Your task to perform on an android device: Go to ESPN.com Image 0: 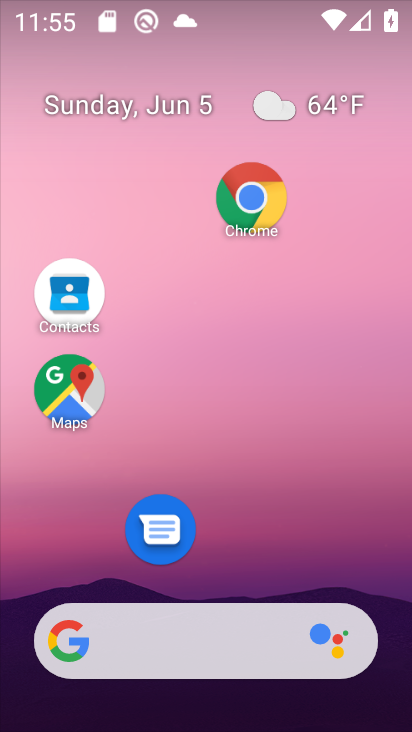
Step 0: click (250, 207)
Your task to perform on an android device: Go to ESPN.com Image 1: 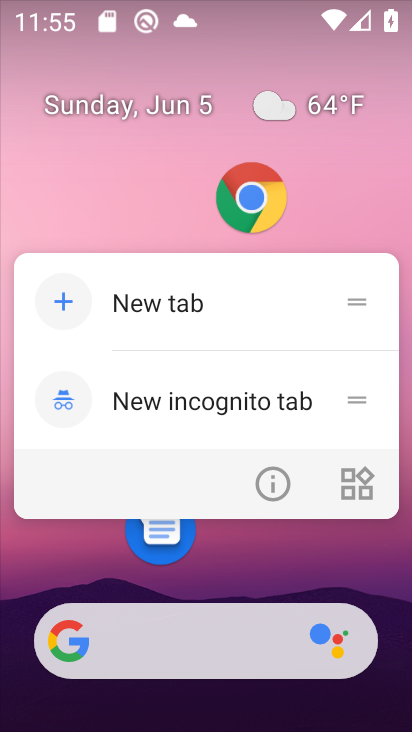
Step 1: click (250, 210)
Your task to perform on an android device: Go to ESPN.com Image 2: 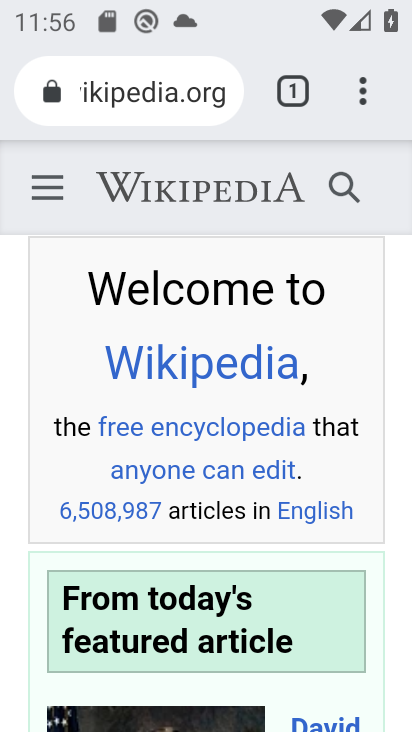
Step 2: click (147, 90)
Your task to perform on an android device: Go to ESPN.com Image 3: 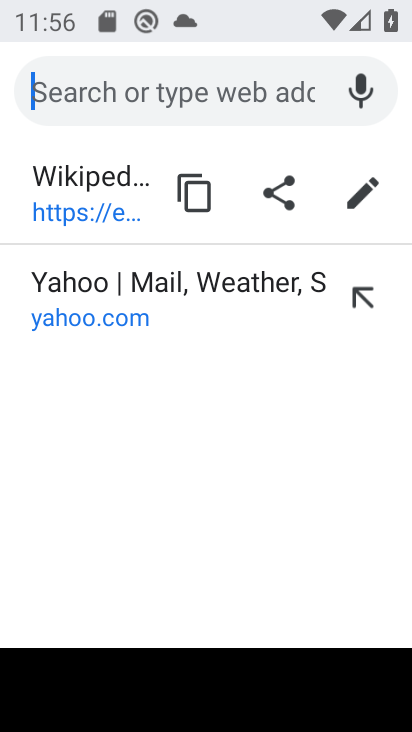
Step 3: type "ESPN.com"
Your task to perform on an android device: Go to ESPN.com Image 4: 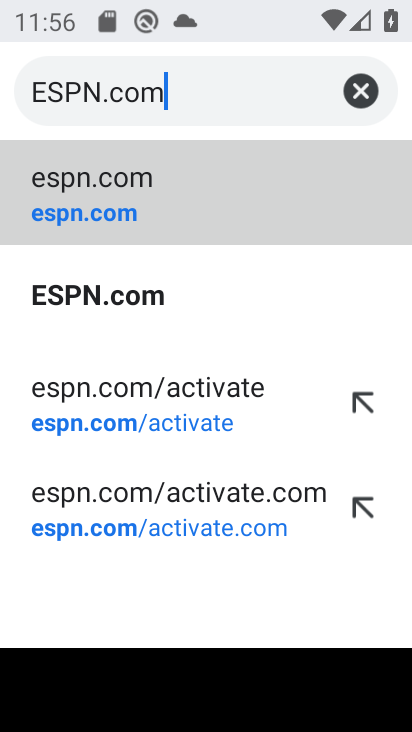
Step 4: click (123, 208)
Your task to perform on an android device: Go to ESPN.com Image 5: 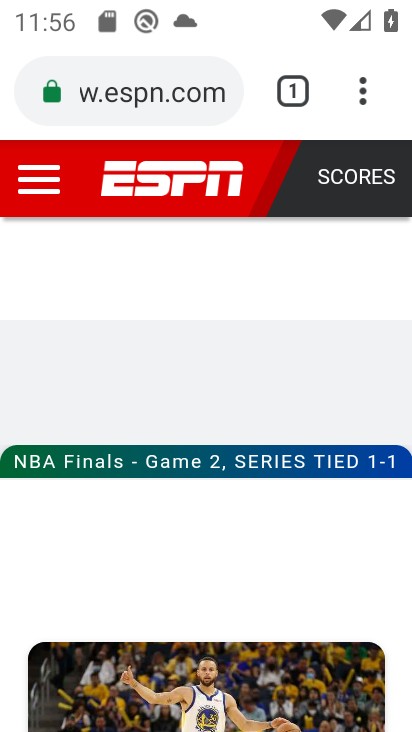
Step 5: task complete